Your task to perform on an android device: make emails show in primary in the gmail app Image 0: 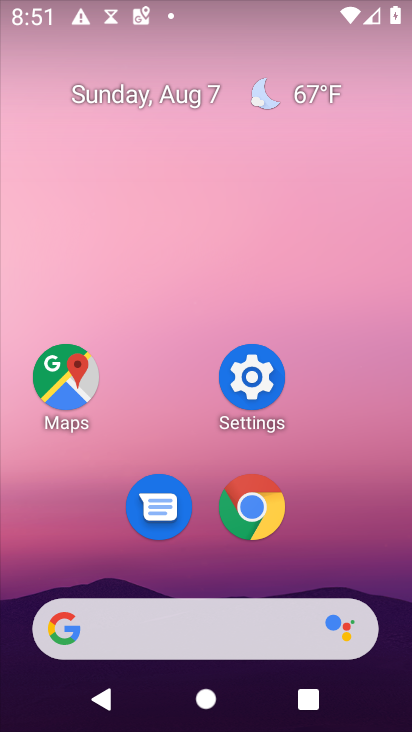
Step 0: drag from (247, 650) to (377, 86)
Your task to perform on an android device: make emails show in primary in the gmail app Image 1: 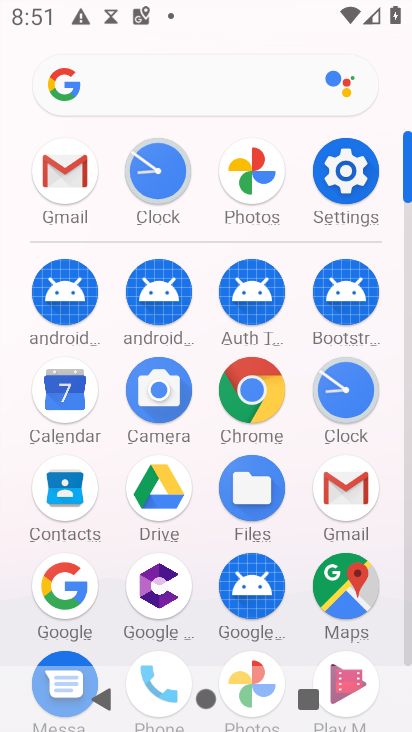
Step 1: click (351, 494)
Your task to perform on an android device: make emails show in primary in the gmail app Image 2: 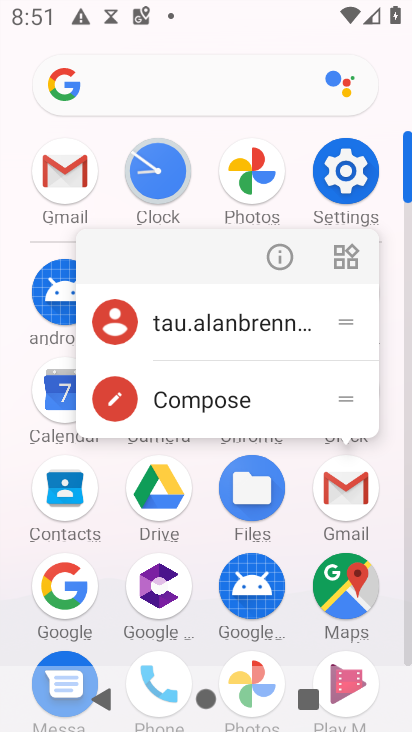
Step 2: click (351, 494)
Your task to perform on an android device: make emails show in primary in the gmail app Image 3: 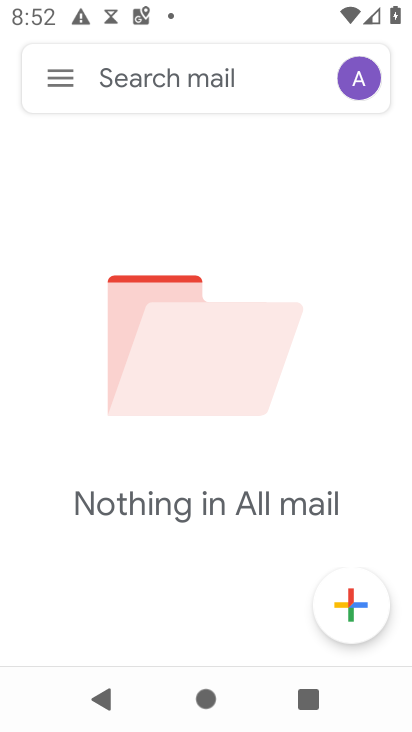
Step 3: click (63, 77)
Your task to perform on an android device: make emails show in primary in the gmail app Image 4: 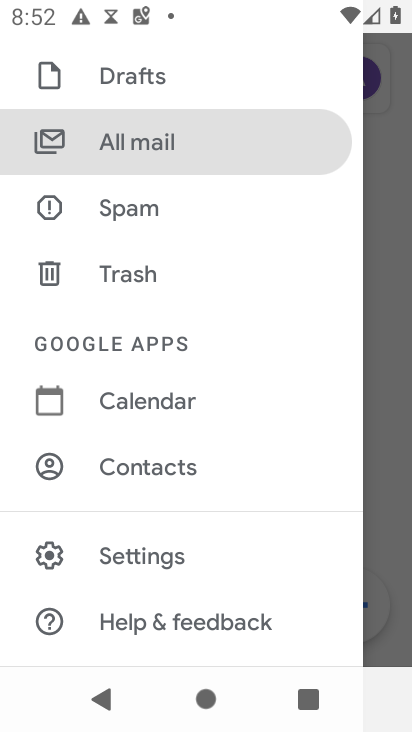
Step 4: click (172, 550)
Your task to perform on an android device: make emails show in primary in the gmail app Image 5: 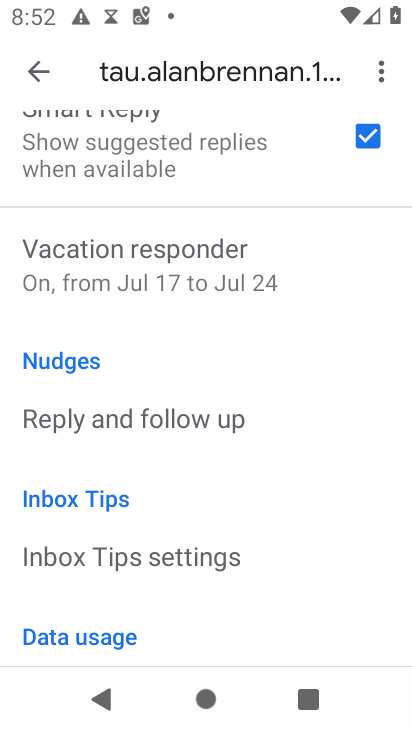
Step 5: task complete